Your task to perform on an android device: change notifications settings Image 0: 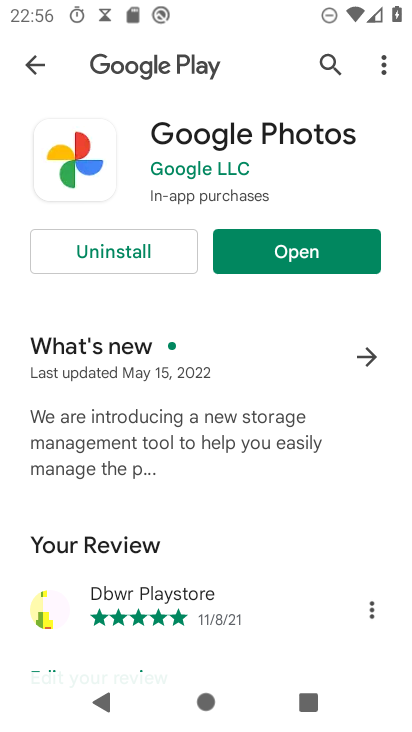
Step 0: press home button
Your task to perform on an android device: change notifications settings Image 1: 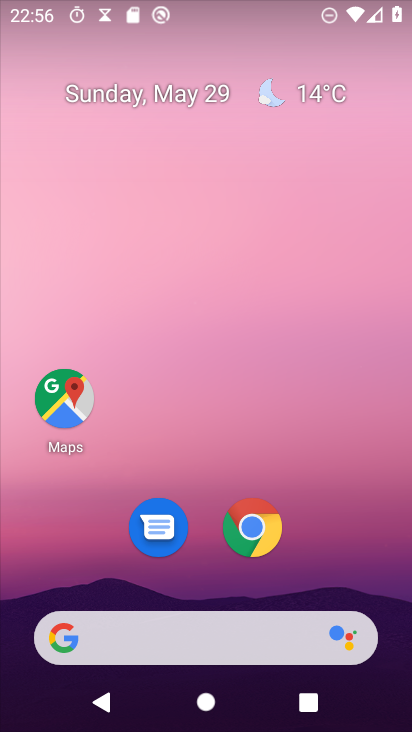
Step 1: drag from (206, 633) to (309, 59)
Your task to perform on an android device: change notifications settings Image 2: 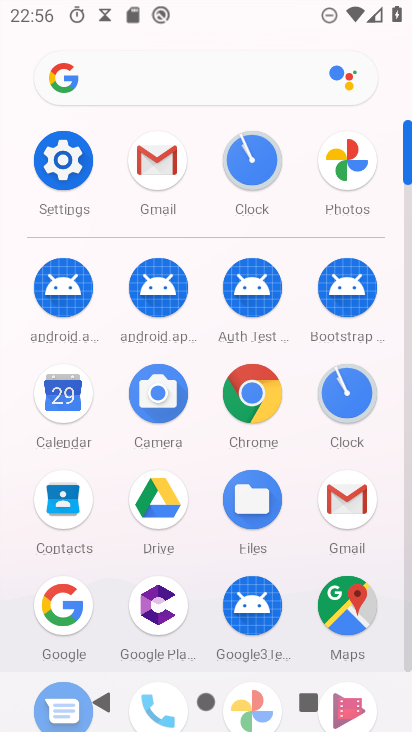
Step 2: click (59, 158)
Your task to perform on an android device: change notifications settings Image 3: 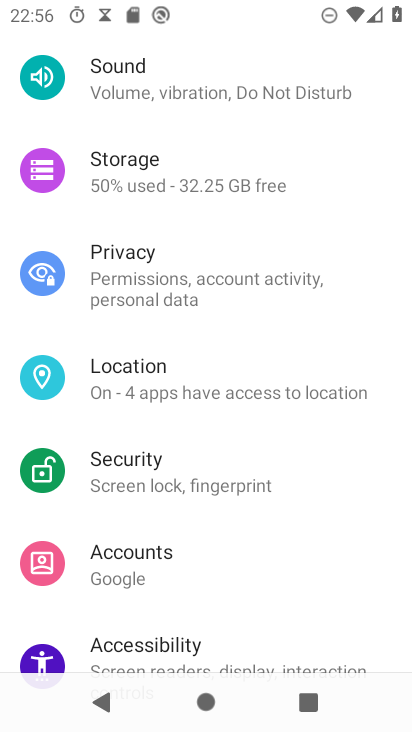
Step 3: drag from (284, 144) to (363, 662)
Your task to perform on an android device: change notifications settings Image 4: 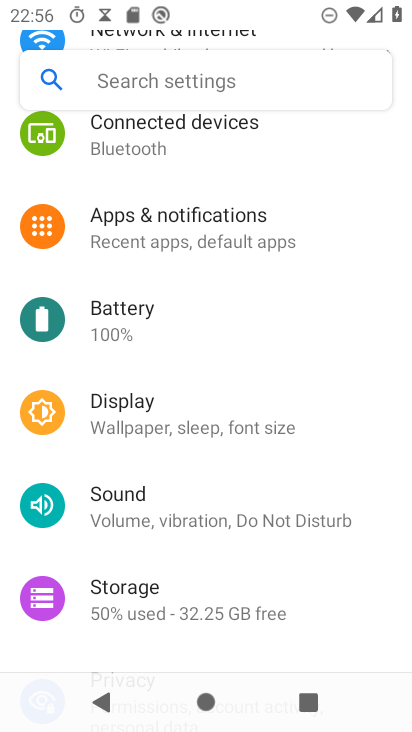
Step 4: click (212, 224)
Your task to perform on an android device: change notifications settings Image 5: 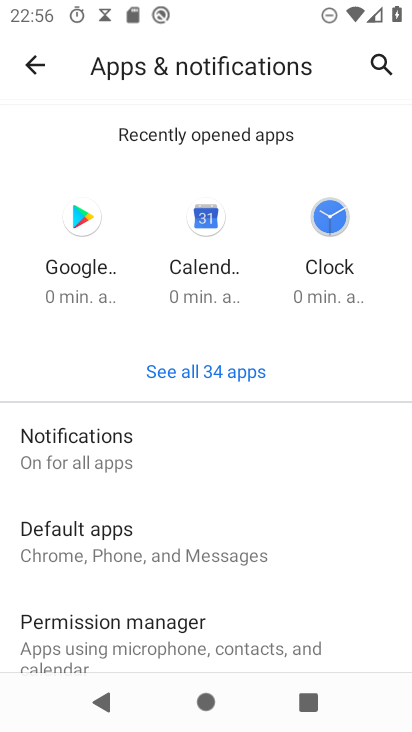
Step 5: click (110, 432)
Your task to perform on an android device: change notifications settings Image 6: 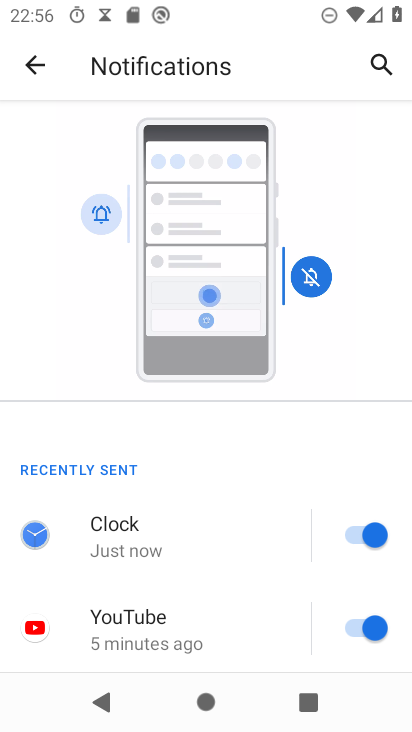
Step 6: drag from (245, 628) to (322, 105)
Your task to perform on an android device: change notifications settings Image 7: 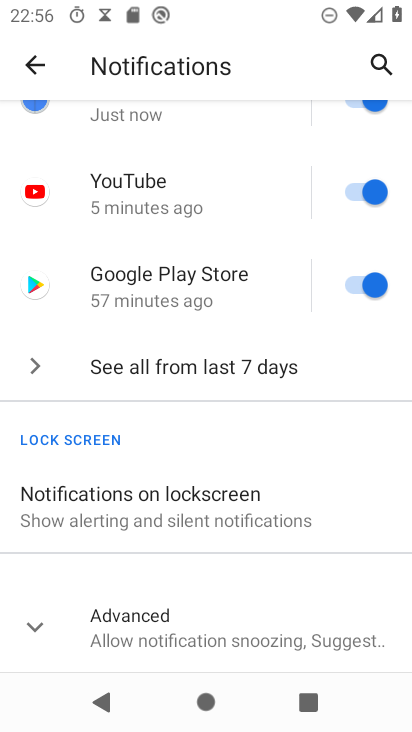
Step 7: drag from (261, 239) to (273, 646)
Your task to perform on an android device: change notifications settings Image 8: 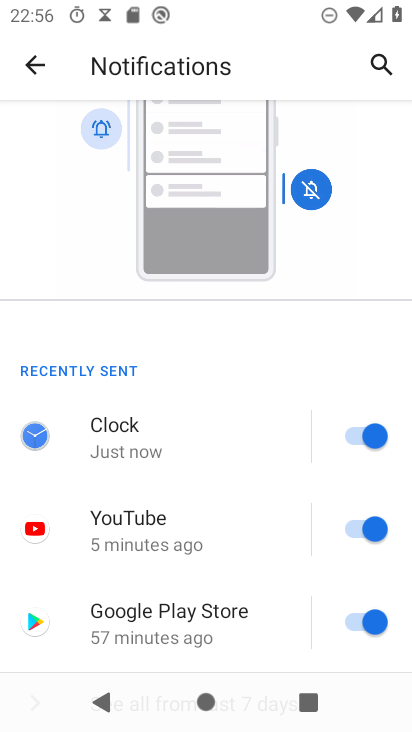
Step 8: click (350, 435)
Your task to perform on an android device: change notifications settings Image 9: 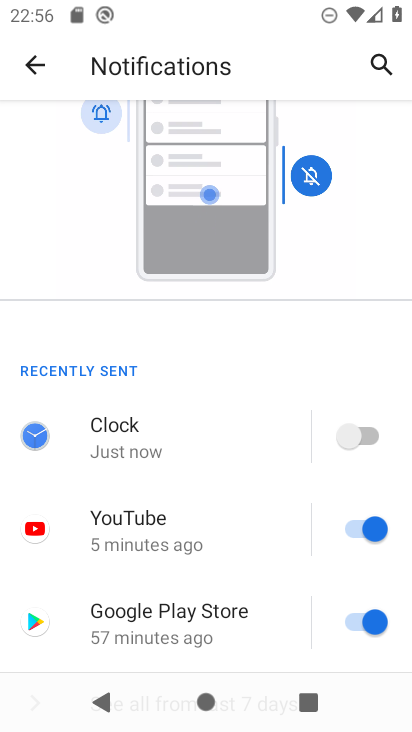
Step 9: task complete